Your task to perform on an android device: turn on notifications settings in the gmail app Image 0: 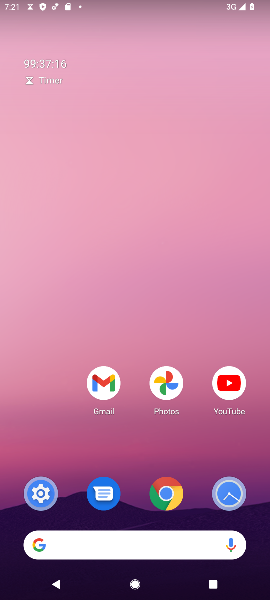
Step 0: drag from (155, 484) to (163, 70)
Your task to perform on an android device: turn on notifications settings in the gmail app Image 1: 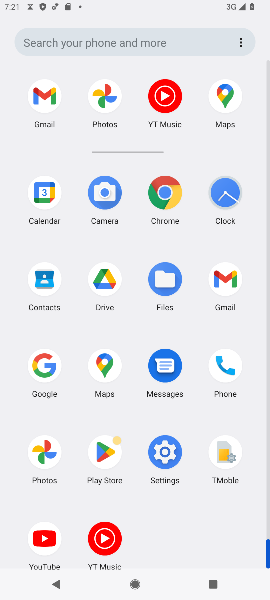
Step 1: click (223, 269)
Your task to perform on an android device: turn on notifications settings in the gmail app Image 2: 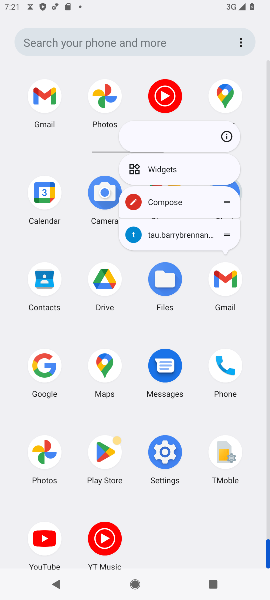
Step 2: click (220, 283)
Your task to perform on an android device: turn on notifications settings in the gmail app Image 3: 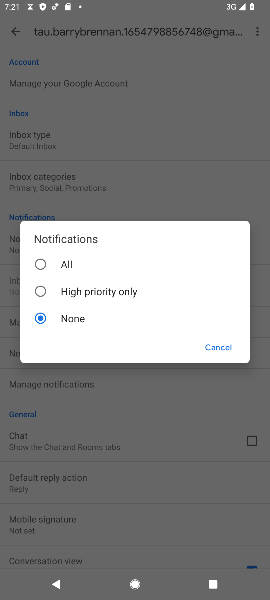
Step 3: click (71, 262)
Your task to perform on an android device: turn on notifications settings in the gmail app Image 4: 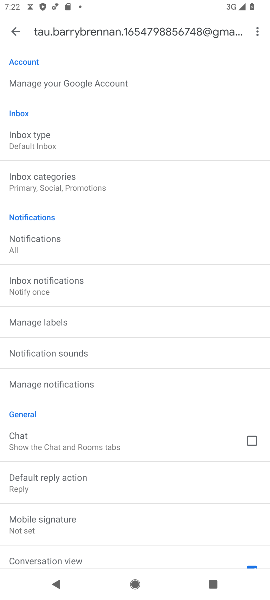
Step 4: click (49, 250)
Your task to perform on an android device: turn on notifications settings in the gmail app Image 5: 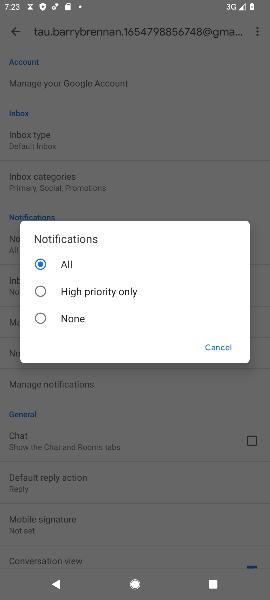
Step 5: task complete